Your task to perform on an android device: What's the weather going to be tomorrow? Image 0: 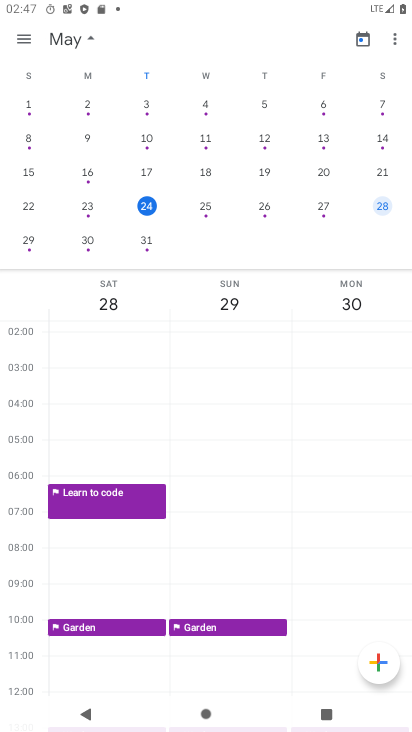
Step 0: press home button
Your task to perform on an android device: What's the weather going to be tomorrow? Image 1: 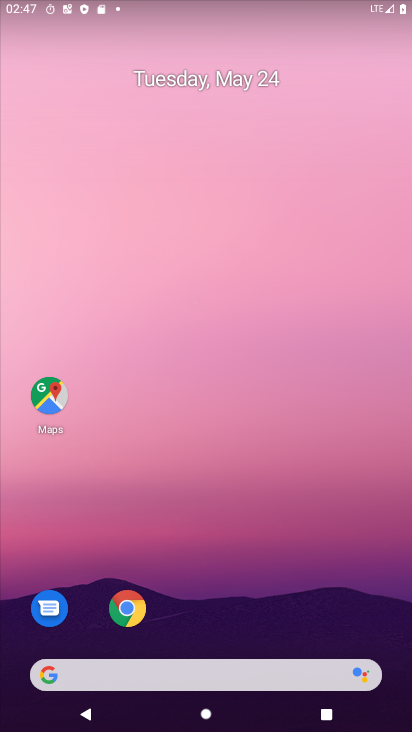
Step 1: drag from (225, 628) to (218, 362)
Your task to perform on an android device: What's the weather going to be tomorrow? Image 2: 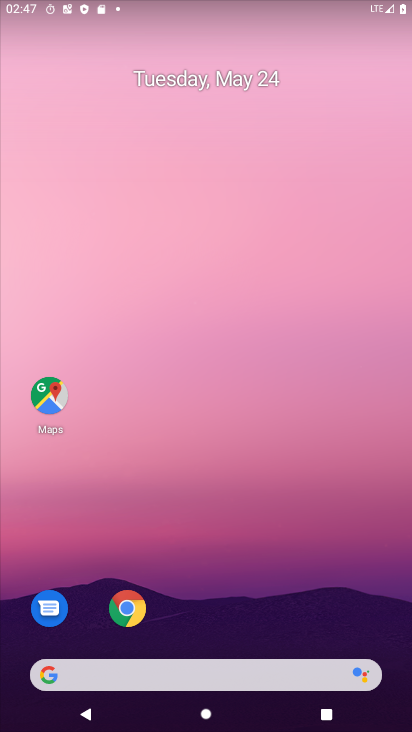
Step 2: click (136, 609)
Your task to perform on an android device: What's the weather going to be tomorrow? Image 3: 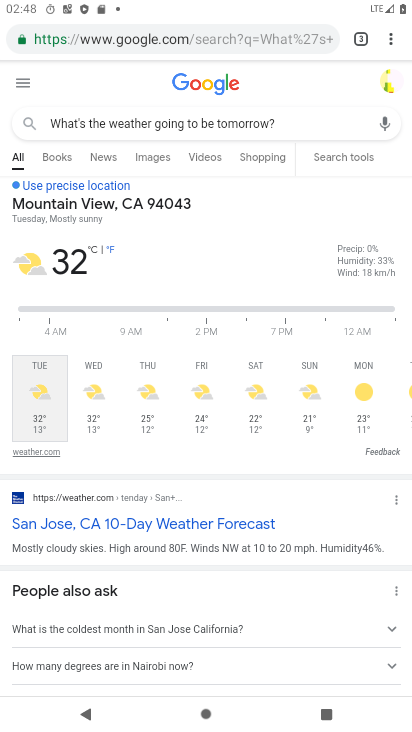
Step 3: click (285, 123)
Your task to perform on an android device: What's the weather going to be tomorrow? Image 4: 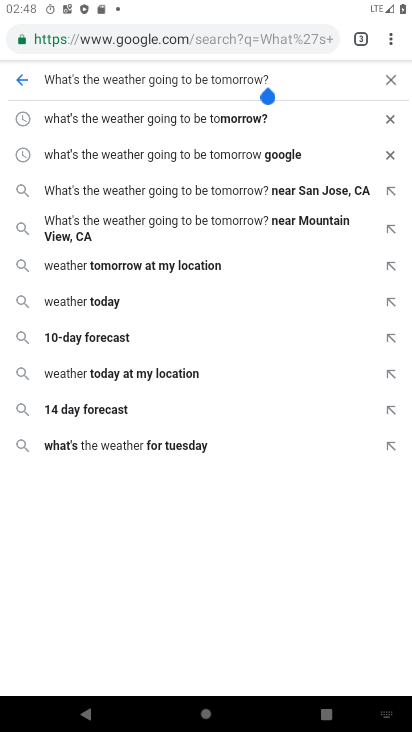
Step 4: click (238, 123)
Your task to perform on an android device: What's the weather going to be tomorrow? Image 5: 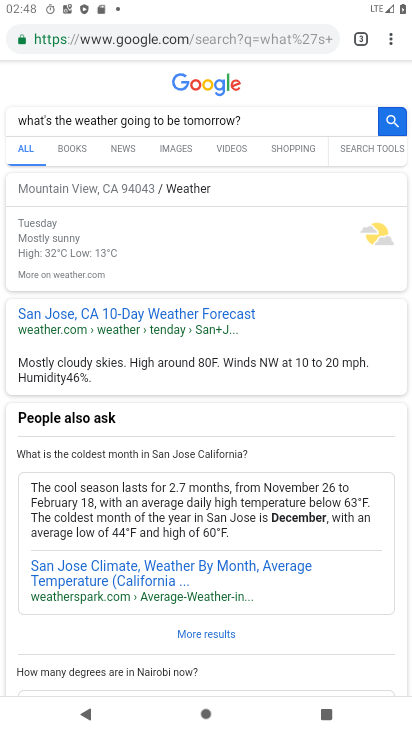
Step 5: click (228, 310)
Your task to perform on an android device: What's the weather going to be tomorrow? Image 6: 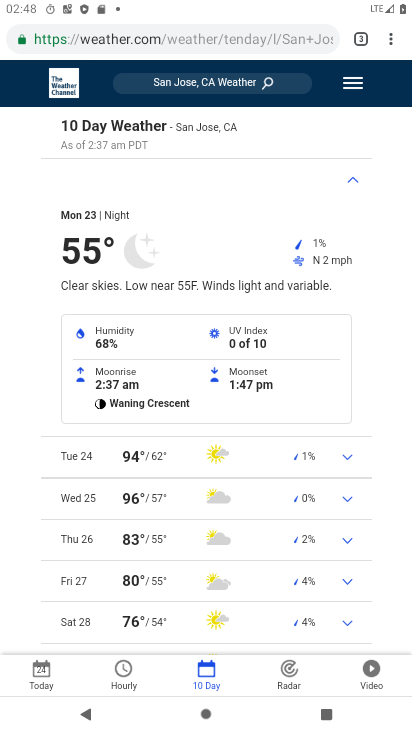
Step 6: task complete